Your task to perform on an android device: Check the news Image 0: 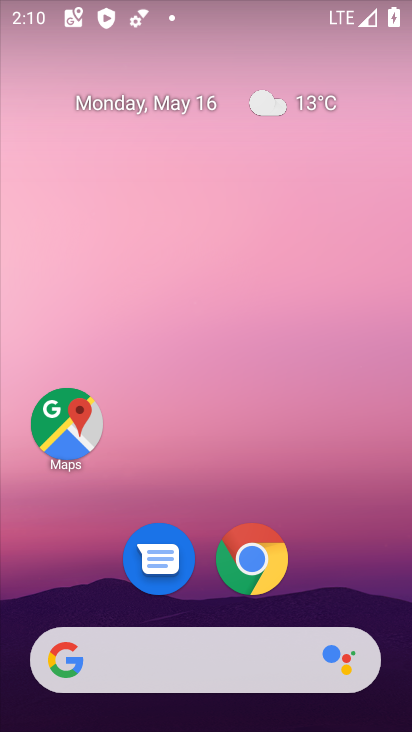
Step 0: click (178, 656)
Your task to perform on an android device: Check the news Image 1: 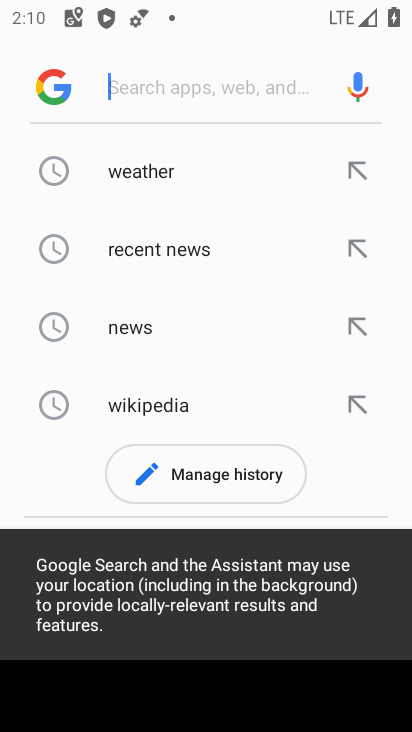
Step 1: click (113, 321)
Your task to perform on an android device: Check the news Image 2: 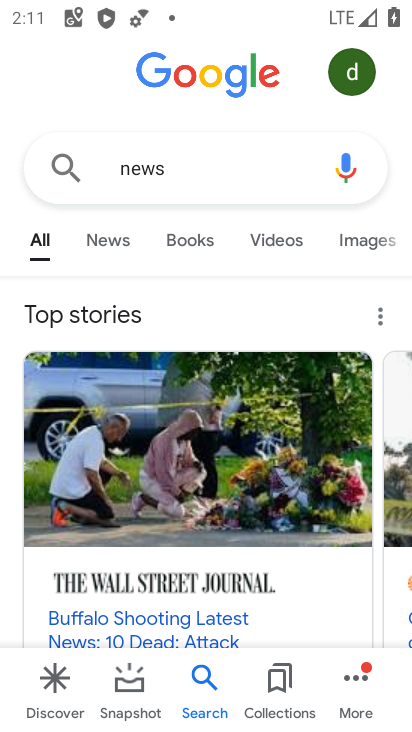
Step 2: task complete